Your task to perform on an android device: open wifi settings Image 0: 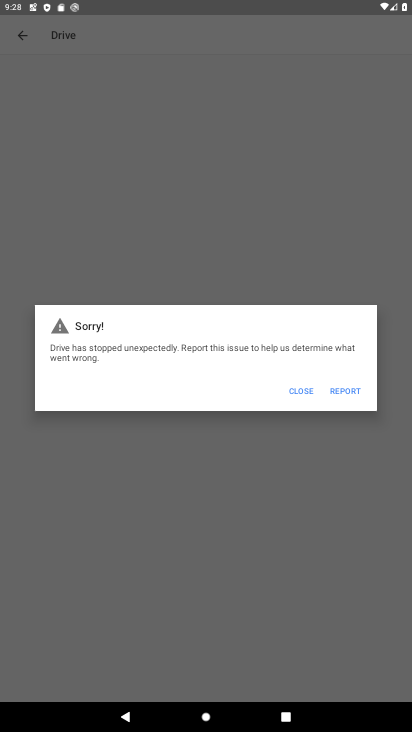
Step 0: press home button
Your task to perform on an android device: open wifi settings Image 1: 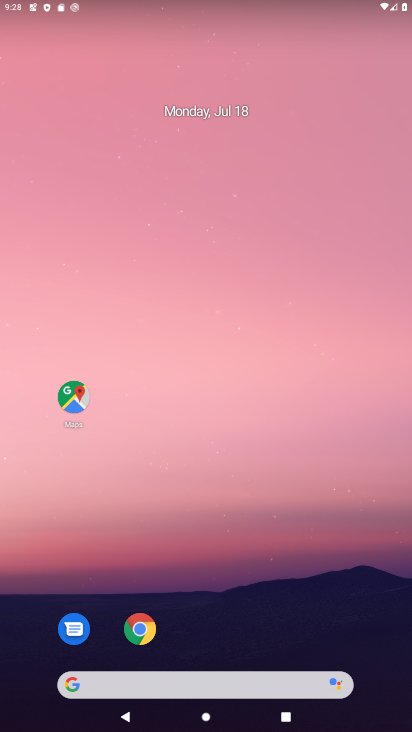
Step 1: drag from (304, 590) to (244, 0)
Your task to perform on an android device: open wifi settings Image 2: 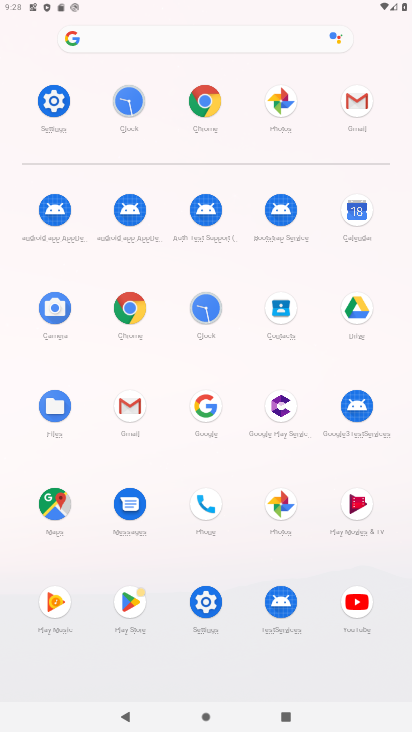
Step 2: click (50, 95)
Your task to perform on an android device: open wifi settings Image 3: 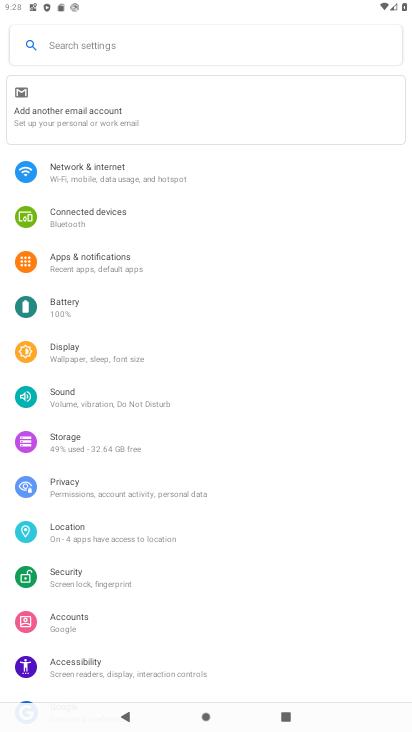
Step 3: click (92, 162)
Your task to perform on an android device: open wifi settings Image 4: 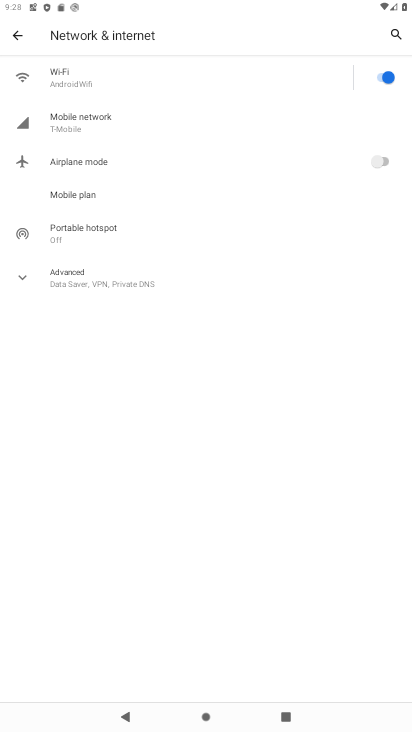
Step 4: click (181, 80)
Your task to perform on an android device: open wifi settings Image 5: 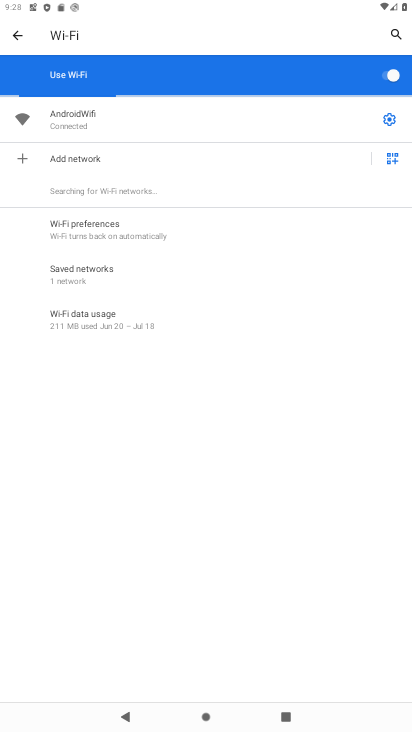
Step 5: click (397, 118)
Your task to perform on an android device: open wifi settings Image 6: 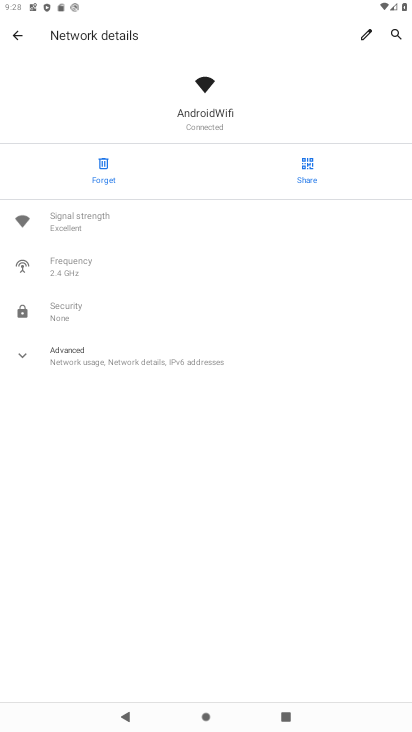
Step 6: task complete